Your task to perform on an android device: toggle notifications settings in the gmail app Image 0: 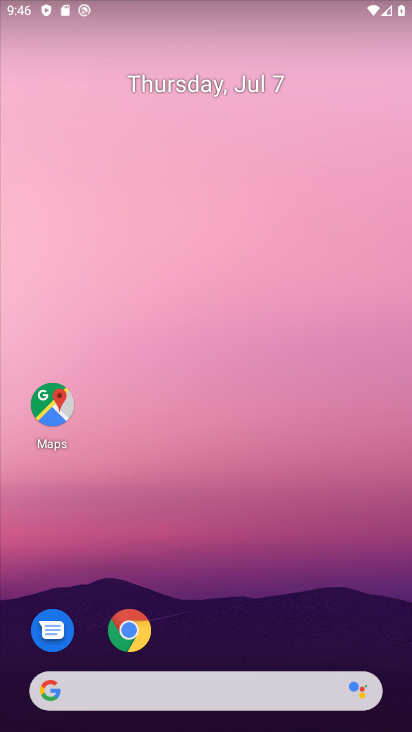
Step 0: drag from (200, 653) to (199, 21)
Your task to perform on an android device: toggle notifications settings in the gmail app Image 1: 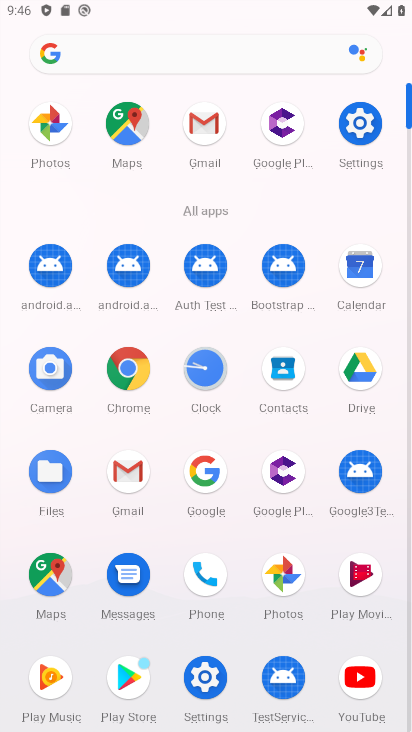
Step 1: click (204, 124)
Your task to perform on an android device: toggle notifications settings in the gmail app Image 2: 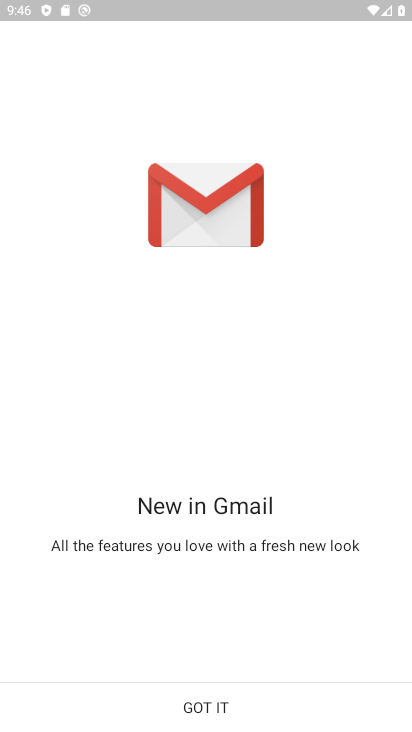
Step 2: click (237, 700)
Your task to perform on an android device: toggle notifications settings in the gmail app Image 3: 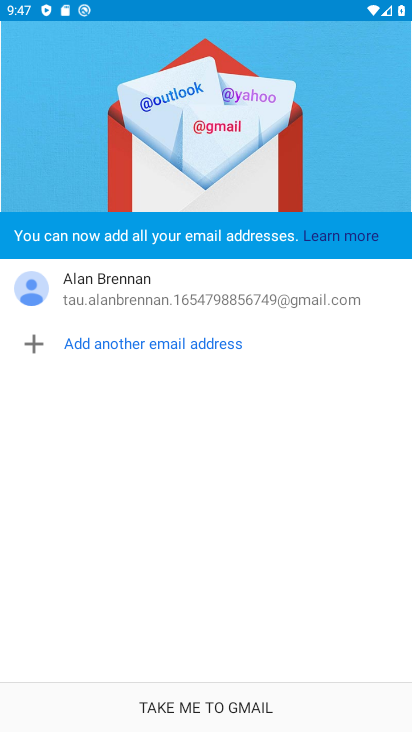
Step 3: click (216, 710)
Your task to perform on an android device: toggle notifications settings in the gmail app Image 4: 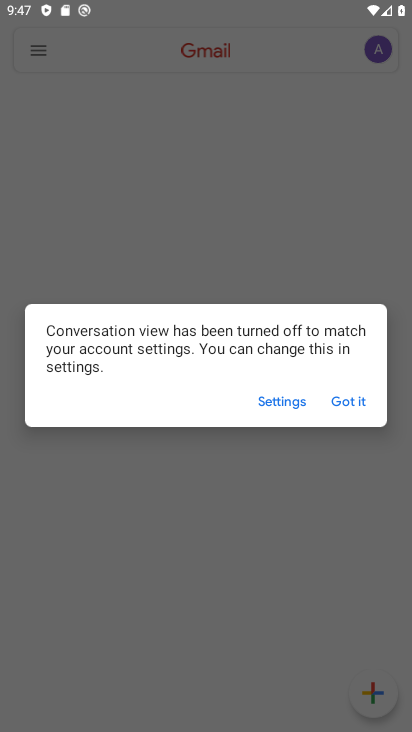
Step 4: click (343, 402)
Your task to perform on an android device: toggle notifications settings in the gmail app Image 5: 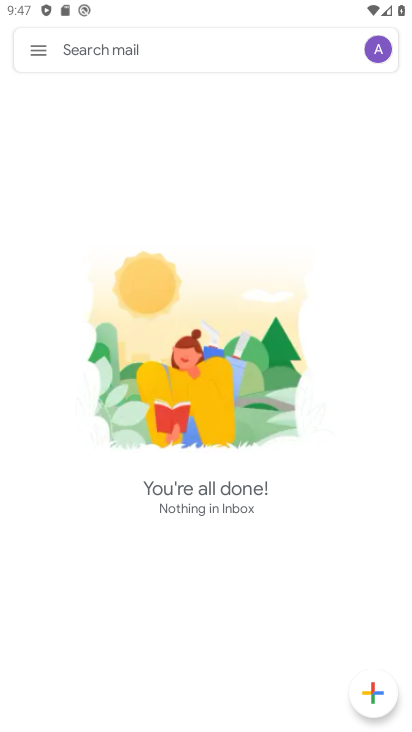
Step 5: click (35, 59)
Your task to perform on an android device: toggle notifications settings in the gmail app Image 6: 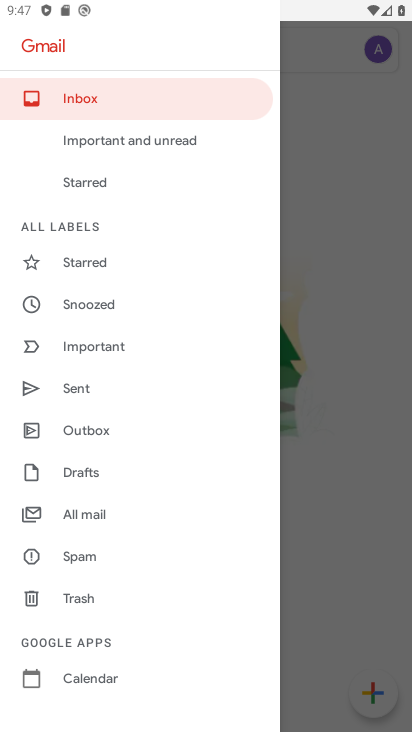
Step 6: drag from (110, 647) to (113, 137)
Your task to perform on an android device: toggle notifications settings in the gmail app Image 7: 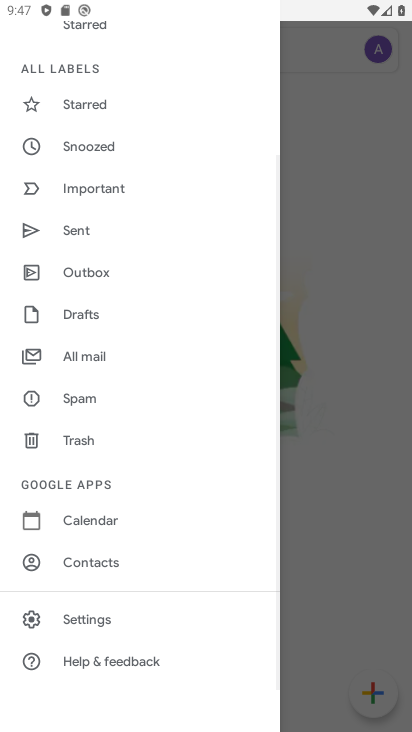
Step 7: click (114, 614)
Your task to perform on an android device: toggle notifications settings in the gmail app Image 8: 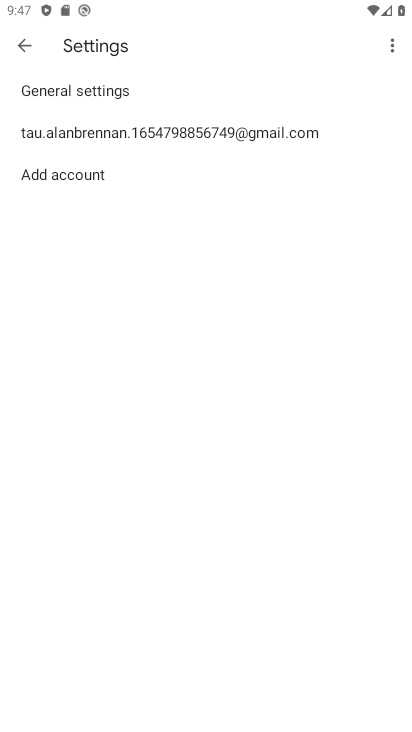
Step 8: click (127, 85)
Your task to perform on an android device: toggle notifications settings in the gmail app Image 9: 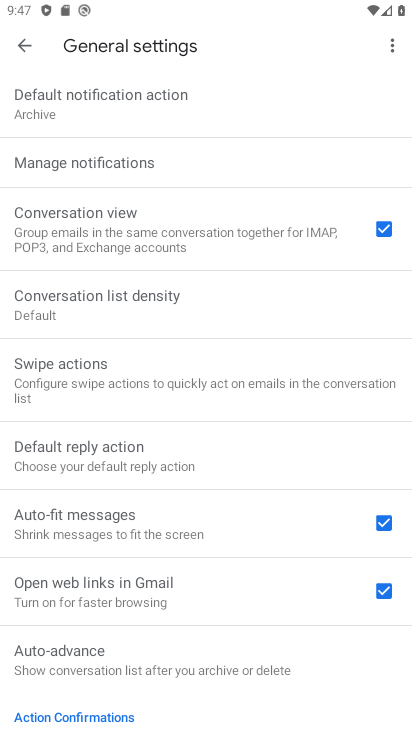
Step 9: click (141, 167)
Your task to perform on an android device: toggle notifications settings in the gmail app Image 10: 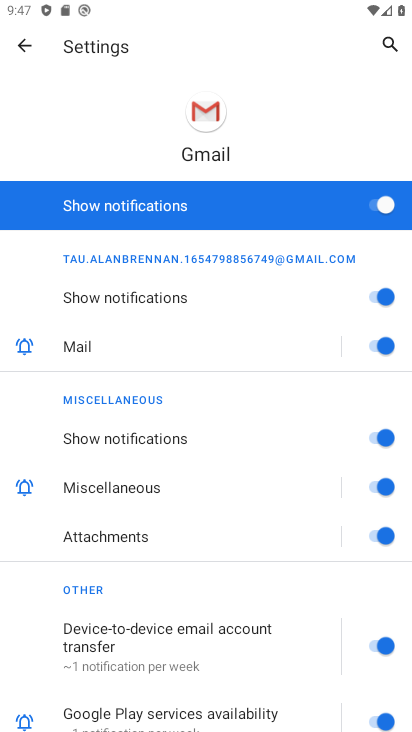
Step 10: click (368, 205)
Your task to perform on an android device: toggle notifications settings in the gmail app Image 11: 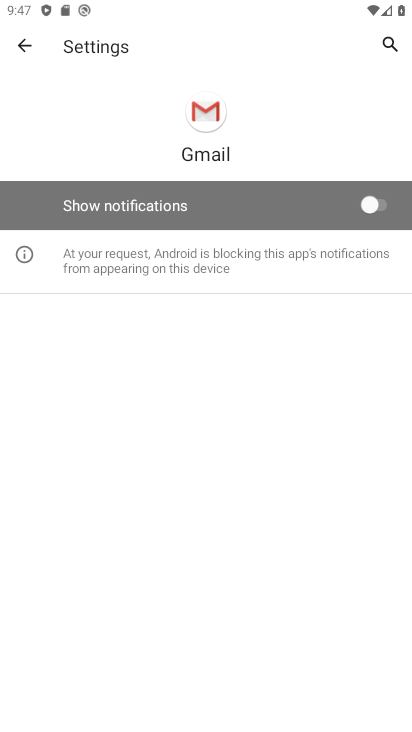
Step 11: task complete